Your task to perform on an android device: turn off improve location accuracy Image 0: 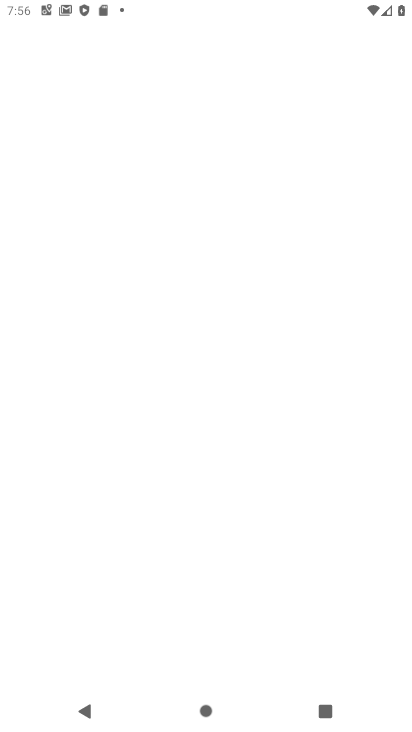
Step 0: press home button
Your task to perform on an android device: turn off improve location accuracy Image 1: 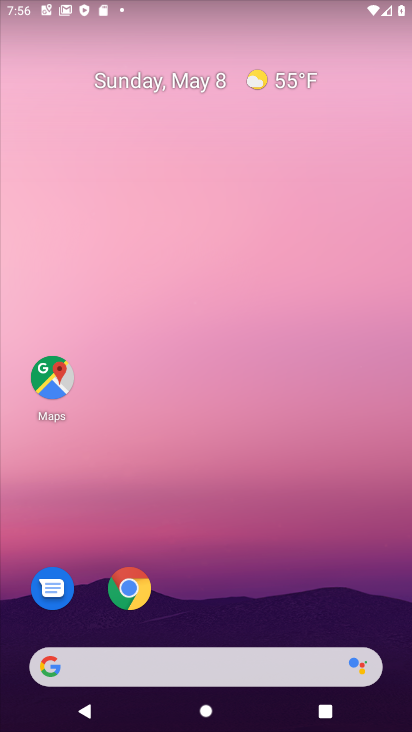
Step 1: drag from (317, 595) to (185, 6)
Your task to perform on an android device: turn off improve location accuracy Image 2: 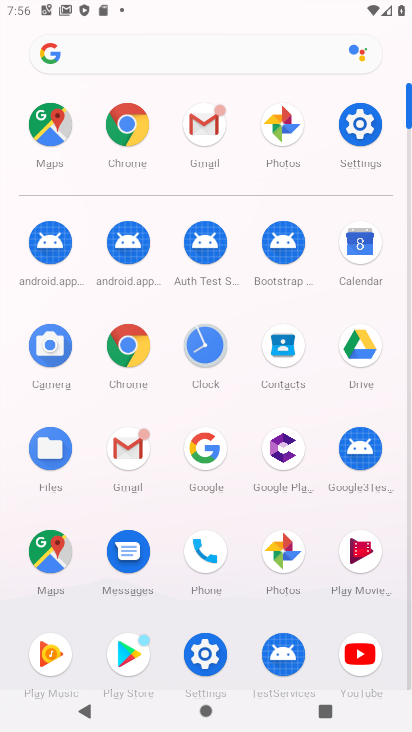
Step 2: click (360, 117)
Your task to perform on an android device: turn off improve location accuracy Image 3: 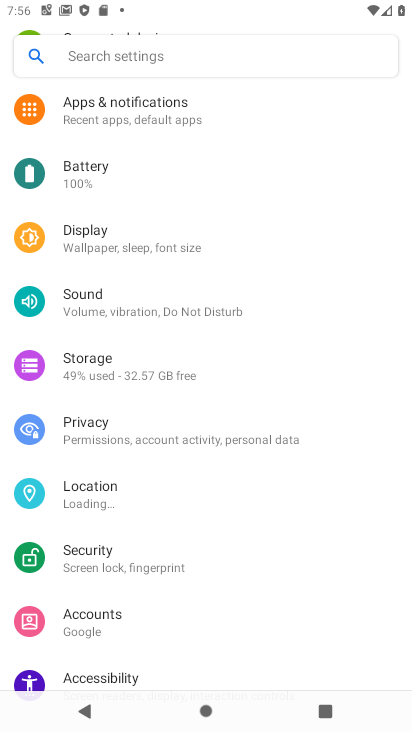
Step 3: click (130, 508)
Your task to perform on an android device: turn off improve location accuracy Image 4: 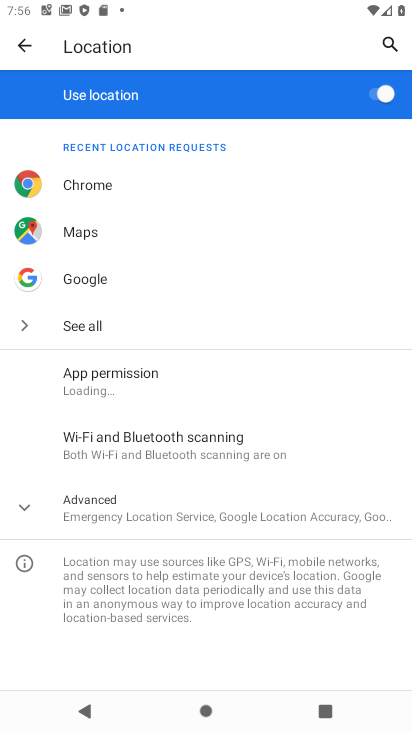
Step 4: click (95, 505)
Your task to perform on an android device: turn off improve location accuracy Image 5: 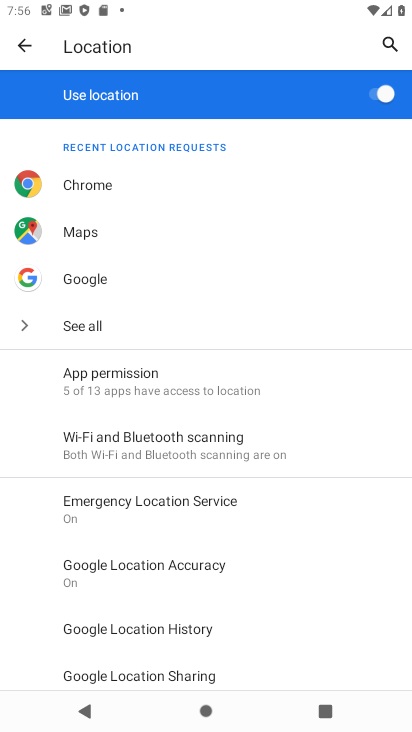
Step 5: click (174, 582)
Your task to perform on an android device: turn off improve location accuracy Image 6: 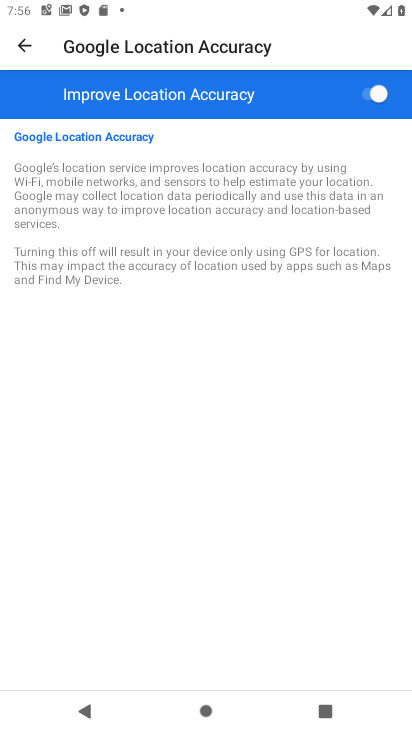
Step 6: click (351, 84)
Your task to perform on an android device: turn off improve location accuracy Image 7: 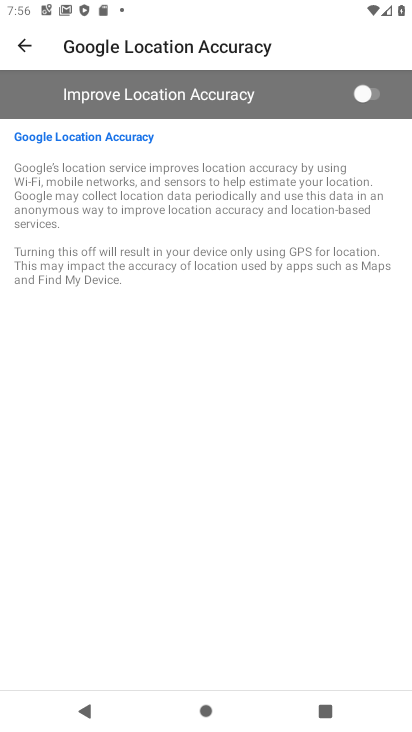
Step 7: task complete